Your task to perform on an android device: all mails in gmail Image 0: 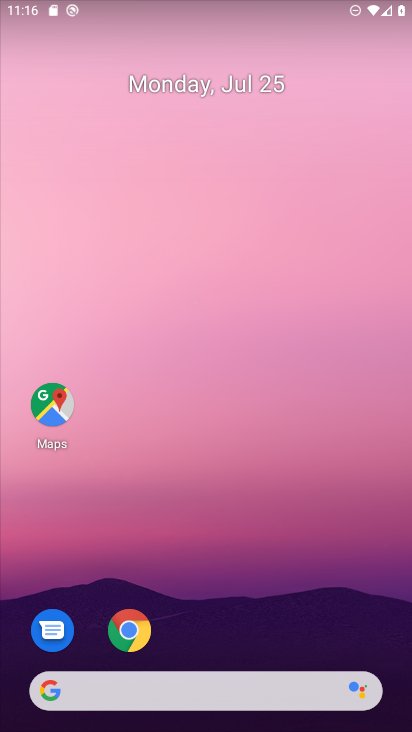
Step 0: drag from (271, 649) to (240, 1)
Your task to perform on an android device: all mails in gmail Image 1: 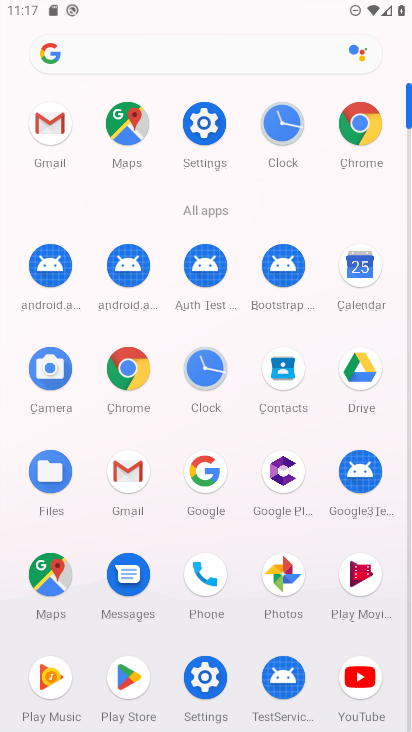
Step 1: click (47, 126)
Your task to perform on an android device: all mails in gmail Image 2: 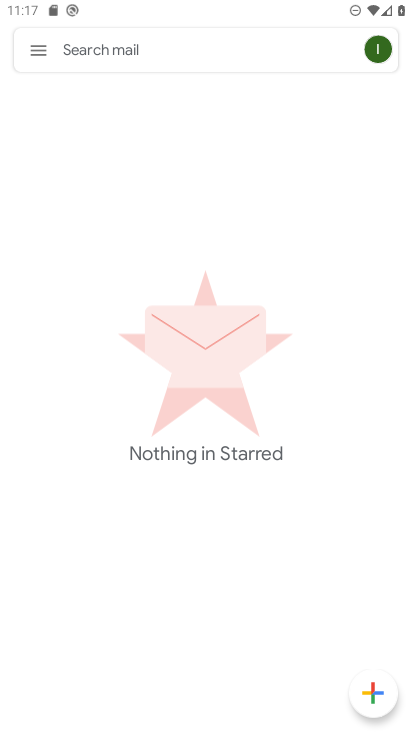
Step 2: click (35, 53)
Your task to perform on an android device: all mails in gmail Image 3: 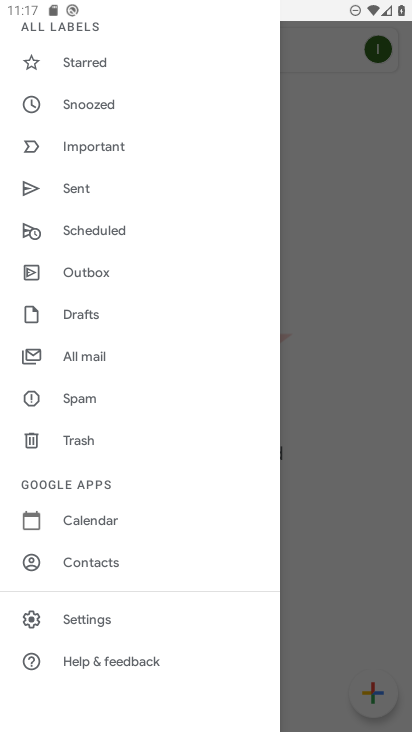
Step 3: click (80, 364)
Your task to perform on an android device: all mails in gmail Image 4: 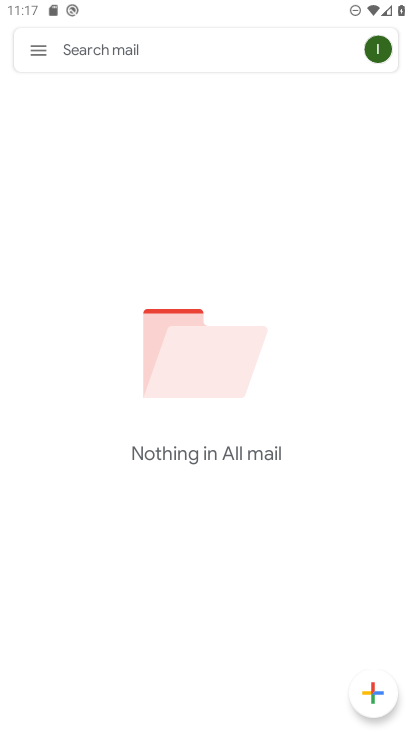
Step 4: task complete